Your task to perform on an android device: open a new tab in the chrome app Image 0: 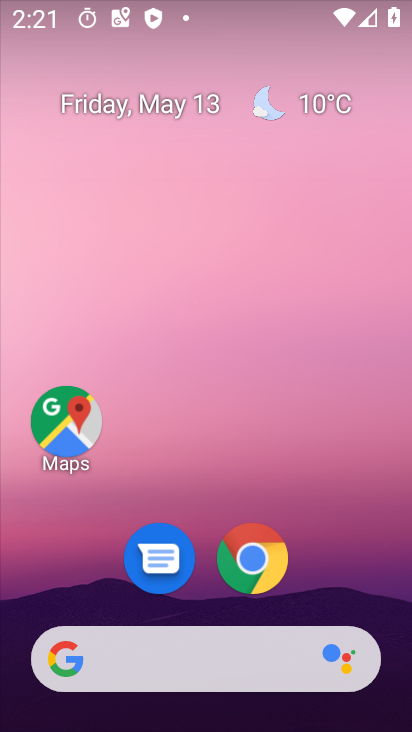
Step 0: click (266, 554)
Your task to perform on an android device: open a new tab in the chrome app Image 1: 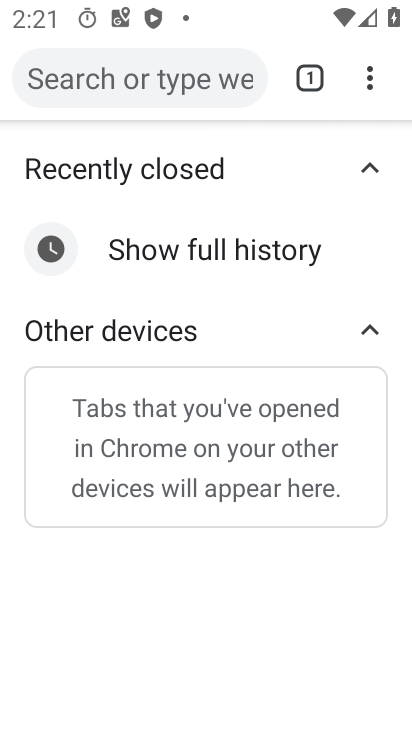
Step 1: click (308, 64)
Your task to perform on an android device: open a new tab in the chrome app Image 2: 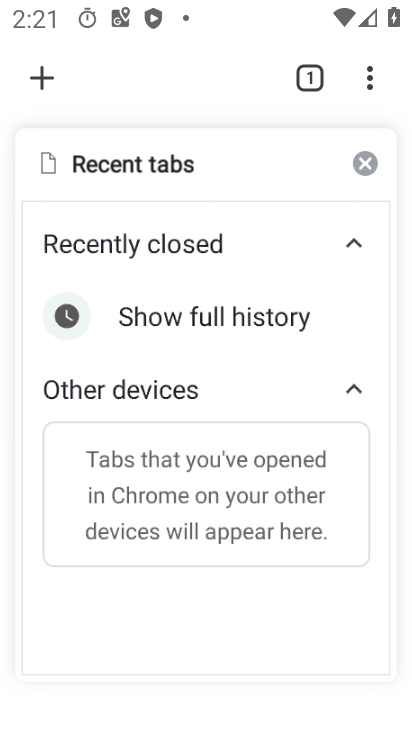
Step 2: click (48, 69)
Your task to perform on an android device: open a new tab in the chrome app Image 3: 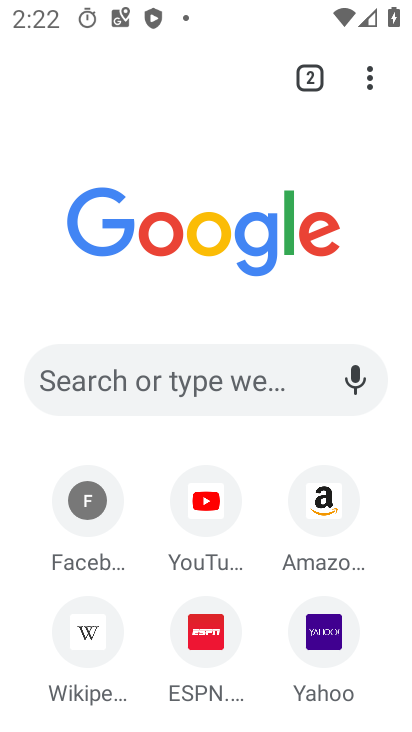
Step 3: task complete